Your task to perform on an android device: delete a single message in the gmail app Image 0: 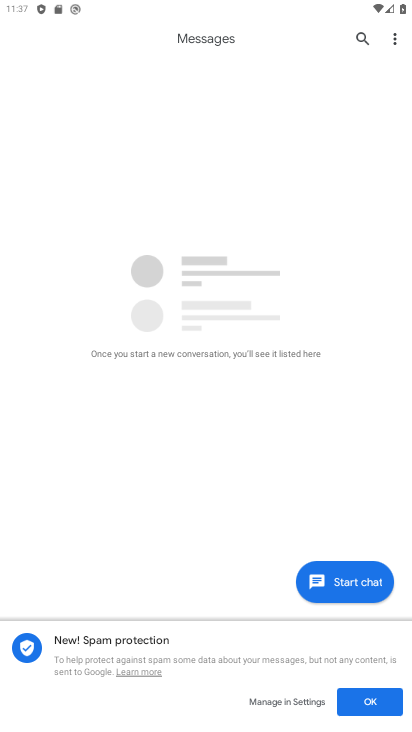
Step 0: press home button
Your task to perform on an android device: delete a single message in the gmail app Image 1: 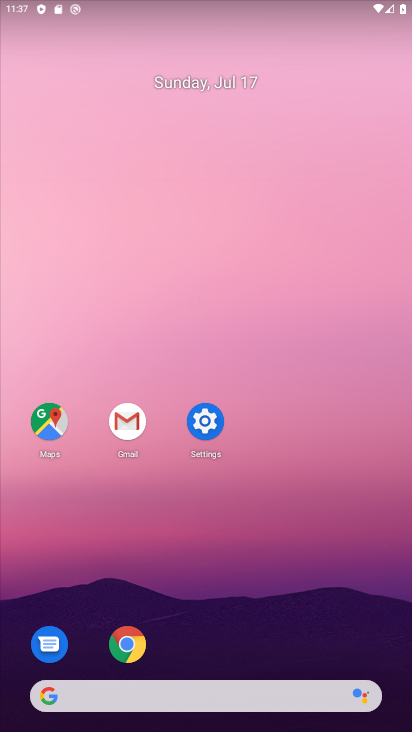
Step 1: click (145, 418)
Your task to perform on an android device: delete a single message in the gmail app Image 2: 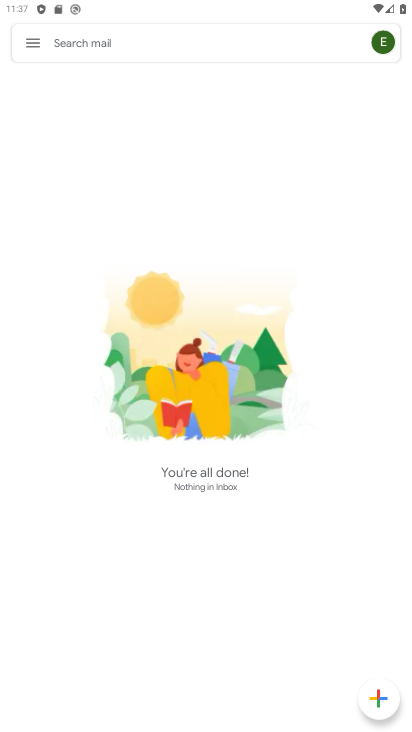
Step 2: task complete